Your task to perform on an android device: Go to battery settings Image 0: 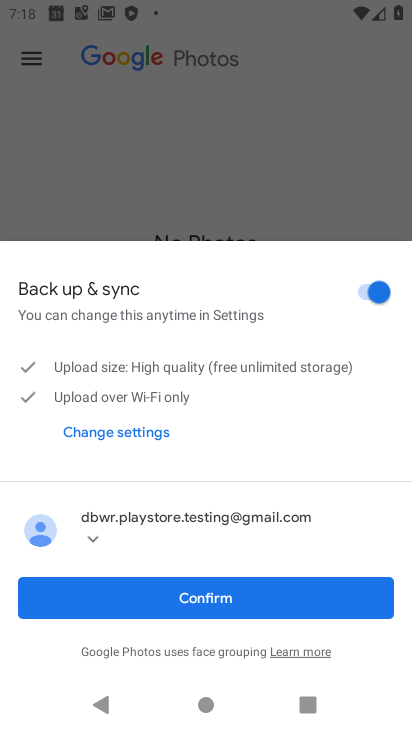
Step 0: press home button
Your task to perform on an android device: Go to battery settings Image 1: 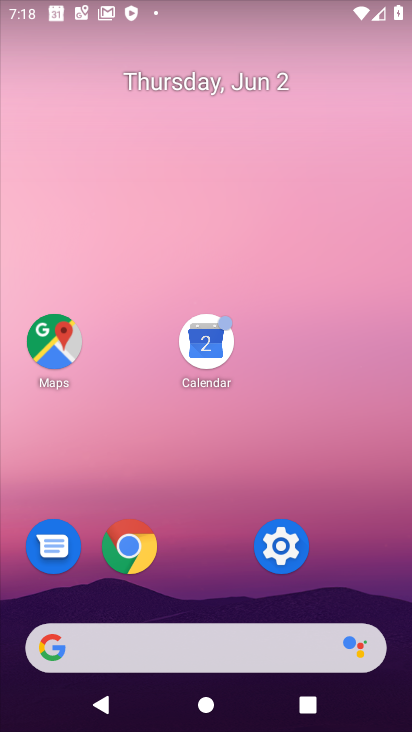
Step 1: click (280, 555)
Your task to perform on an android device: Go to battery settings Image 2: 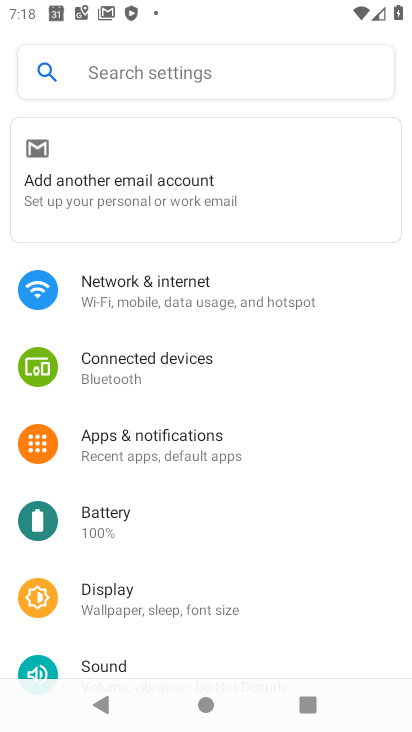
Step 2: click (146, 522)
Your task to perform on an android device: Go to battery settings Image 3: 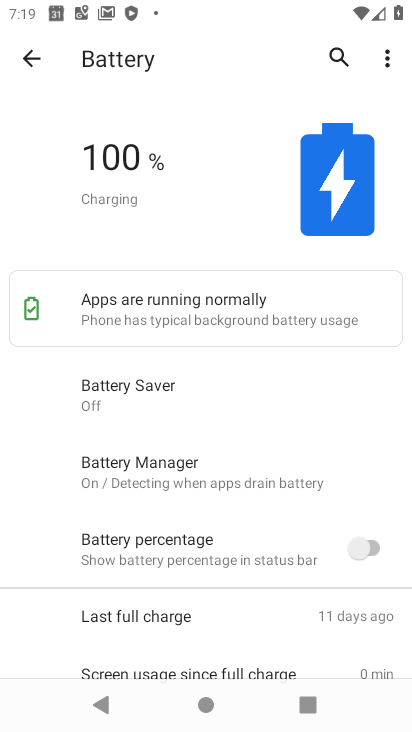
Step 3: task complete